Your task to perform on an android device: move an email to a new category in the gmail app Image 0: 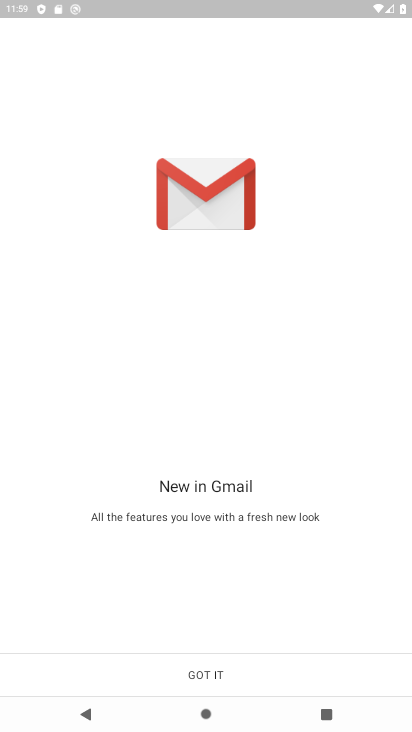
Step 0: press home button
Your task to perform on an android device: move an email to a new category in the gmail app Image 1: 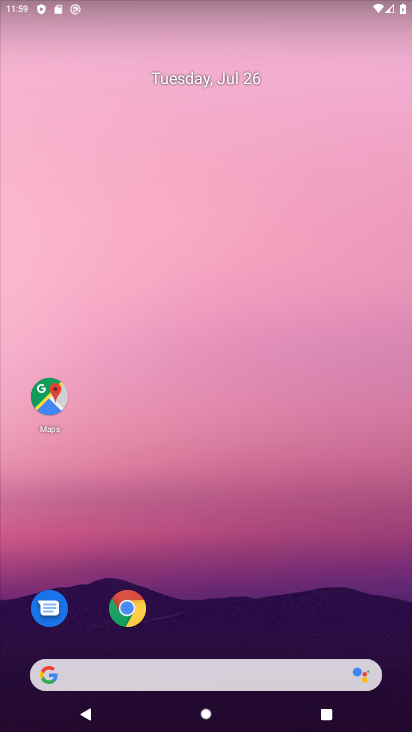
Step 1: drag from (367, 614) to (371, 115)
Your task to perform on an android device: move an email to a new category in the gmail app Image 2: 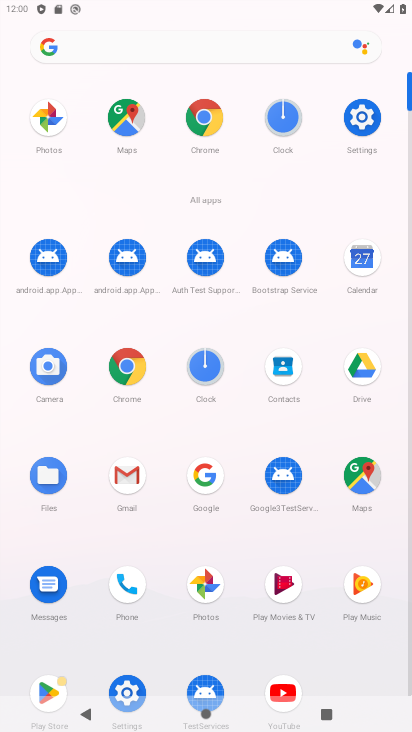
Step 2: click (126, 479)
Your task to perform on an android device: move an email to a new category in the gmail app Image 3: 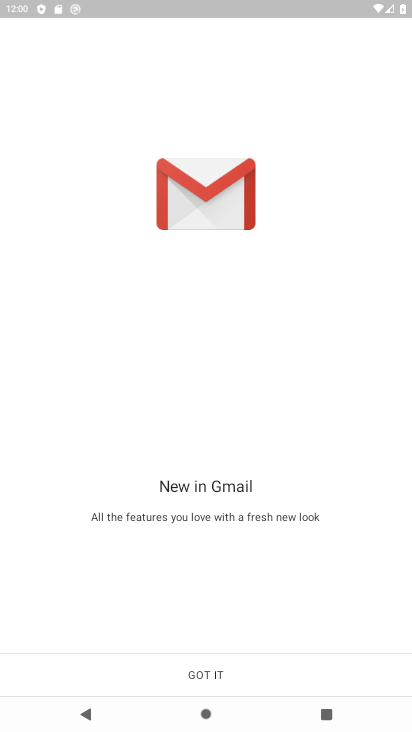
Step 3: click (232, 677)
Your task to perform on an android device: move an email to a new category in the gmail app Image 4: 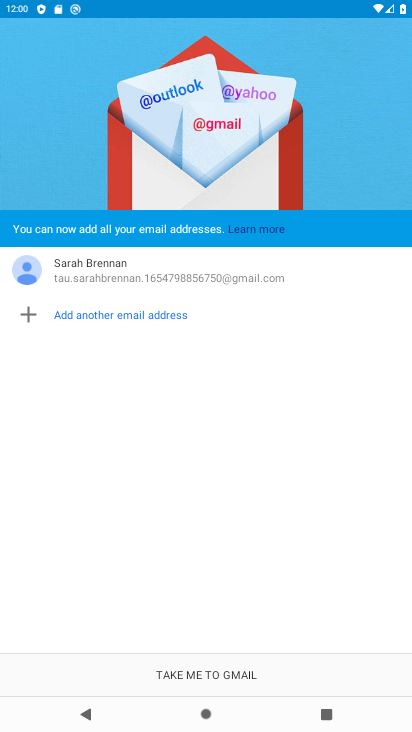
Step 4: click (232, 677)
Your task to perform on an android device: move an email to a new category in the gmail app Image 5: 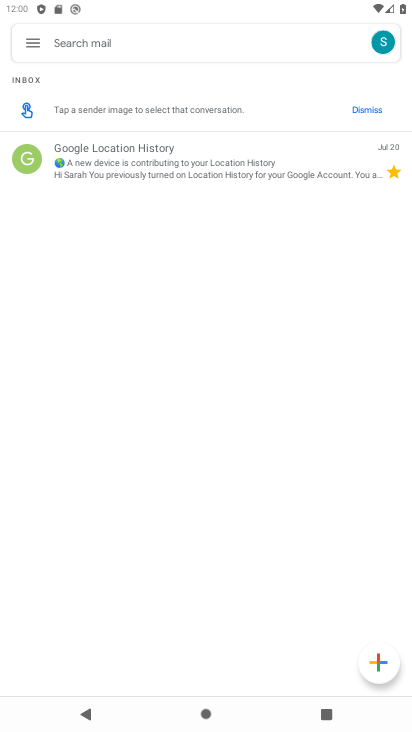
Step 5: click (238, 160)
Your task to perform on an android device: move an email to a new category in the gmail app Image 6: 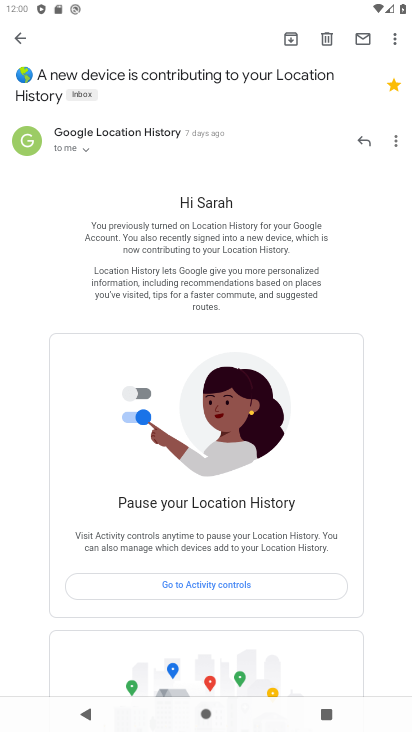
Step 6: click (397, 40)
Your task to perform on an android device: move an email to a new category in the gmail app Image 7: 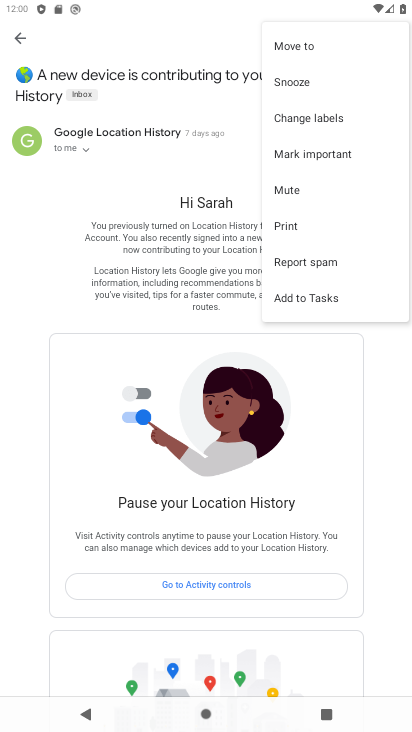
Step 7: click (314, 45)
Your task to perform on an android device: move an email to a new category in the gmail app Image 8: 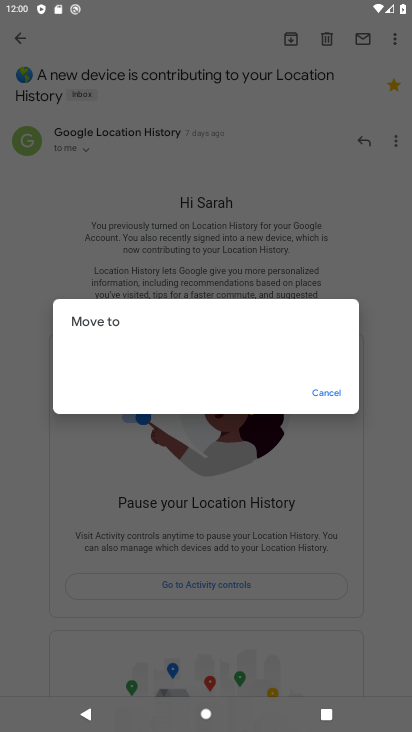
Step 8: task complete